Your task to perform on an android device: Open calendar and show me the second week of next month Image 0: 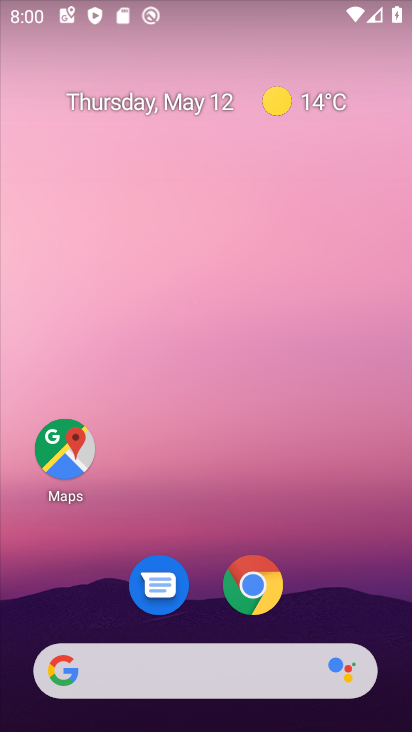
Step 0: drag from (246, 445) to (225, 33)
Your task to perform on an android device: Open calendar and show me the second week of next month Image 1: 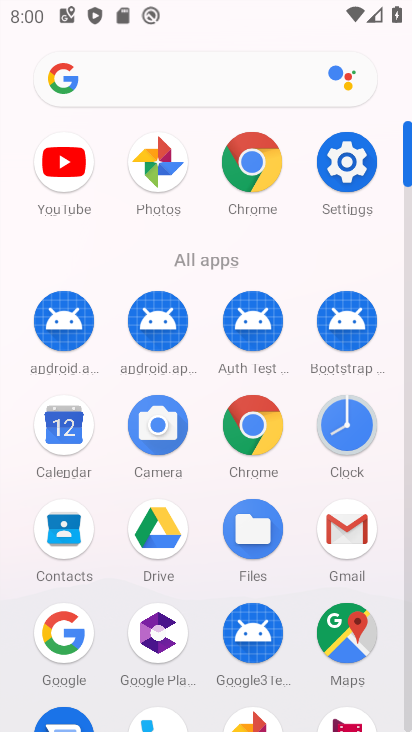
Step 1: click (72, 419)
Your task to perform on an android device: Open calendar and show me the second week of next month Image 2: 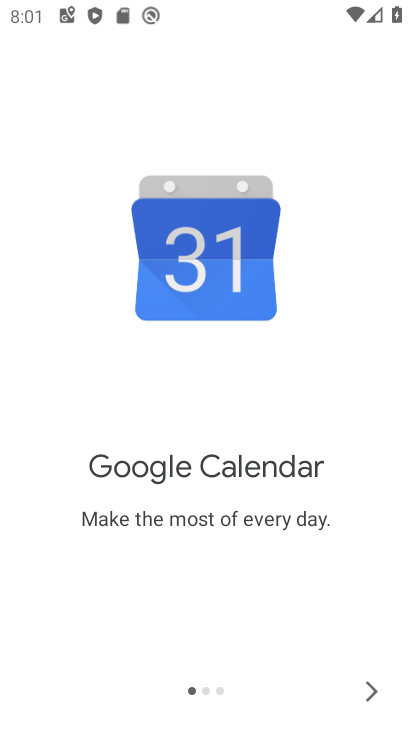
Step 2: press home button
Your task to perform on an android device: Open calendar and show me the second week of next month Image 3: 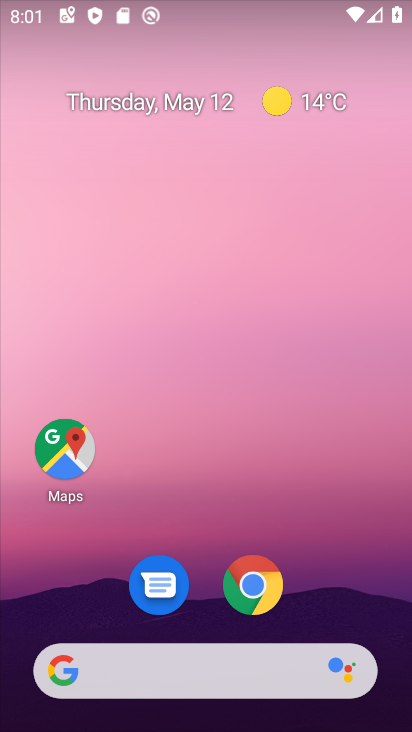
Step 3: drag from (222, 482) to (156, 68)
Your task to perform on an android device: Open calendar and show me the second week of next month Image 4: 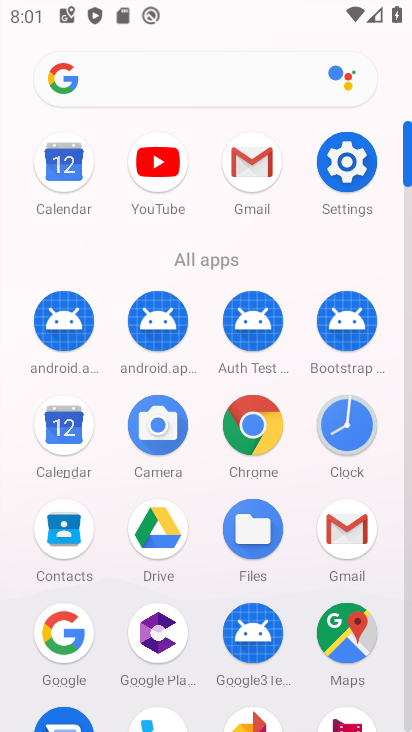
Step 4: click (70, 170)
Your task to perform on an android device: Open calendar and show me the second week of next month Image 5: 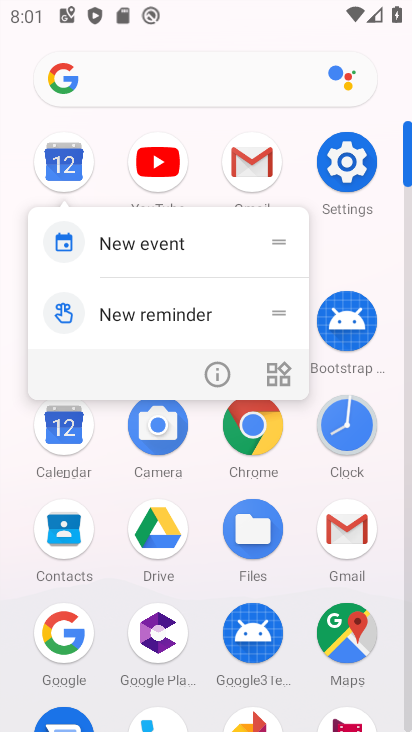
Step 5: click (64, 155)
Your task to perform on an android device: Open calendar and show me the second week of next month Image 6: 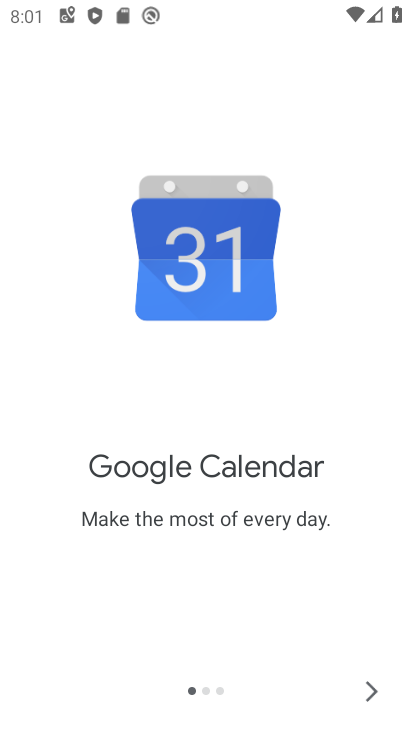
Step 6: click (363, 682)
Your task to perform on an android device: Open calendar and show me the second week of next month Image 7: 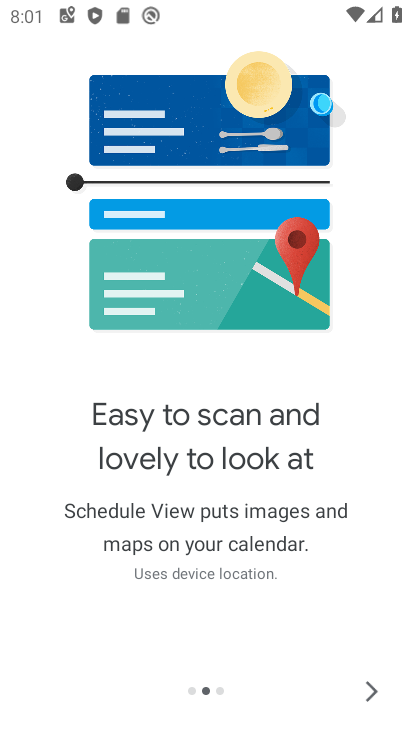
Step 7: click (363, 682)
Your task to perform on an android device: Open calendar and show me the second week of next month Image 8: 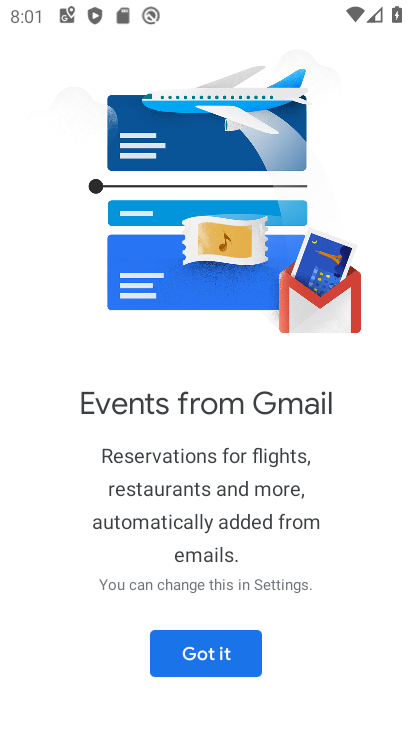
Step 8: click (239, 643)
Your task to perform on an android device: Open calendar and show me the second week of next month Image 9: 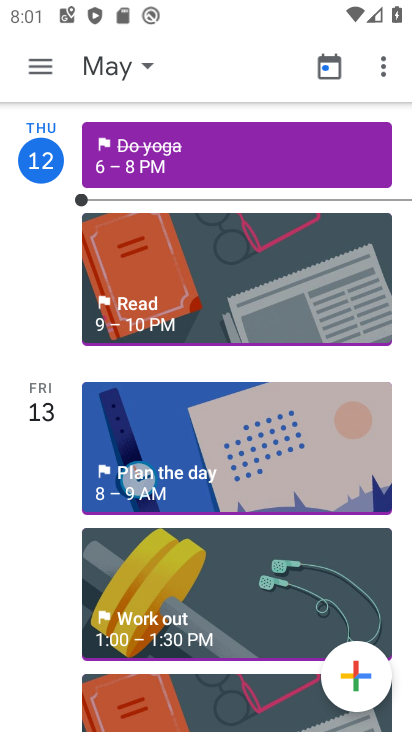
Step 9: click (40, 65)
Your task to perform on an android device: Open calendar and show me the second week of next month Image 10: 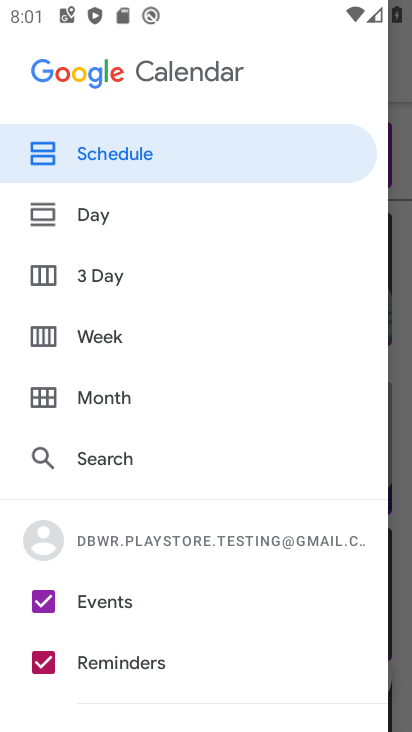
Step 10: click (82, 386)
Your task to perform on an android device: Open calendar and show me the second week of next month Image 11: 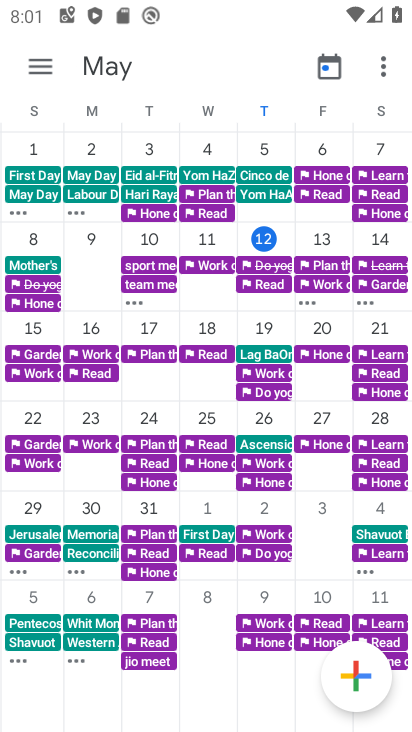
Step 11: drag from (367, 407) to (0, 307)
Your task to perform on an android device: Open calendar and show me the second week of next month Image 12: 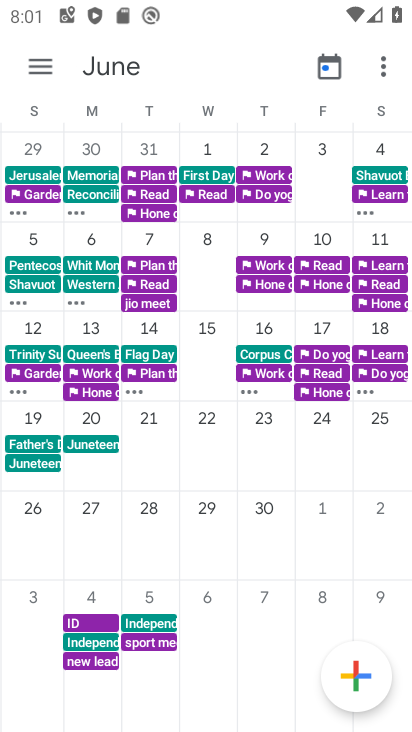
Step 12: click (37, 328)
Your task to perform on an android device: Open calendar and show me the second week of next month Image 13: 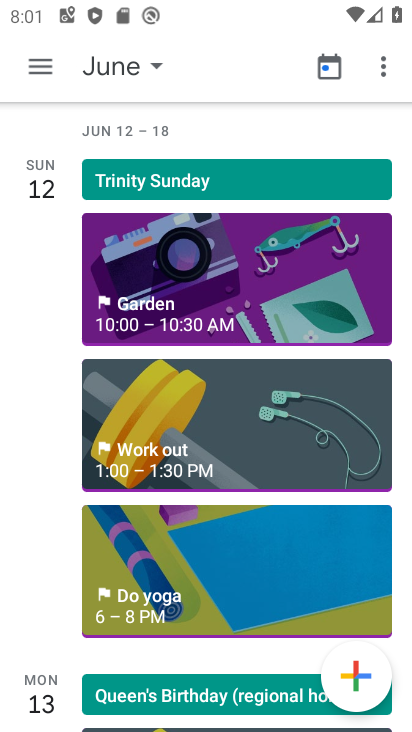
Step 13: click (34, 64)
Your task to perform on an android device: Open calendar and show me the second week of next month Image 14: 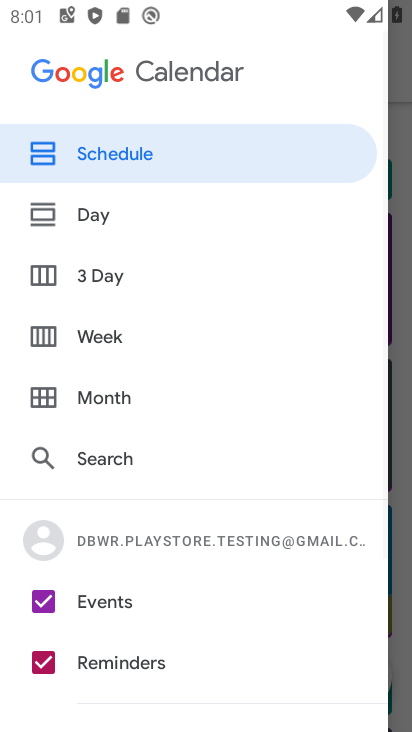
Step 14: click (113, 331)
Your task to perform on an android device: Open calendar and show me the second week of next month Image 15: 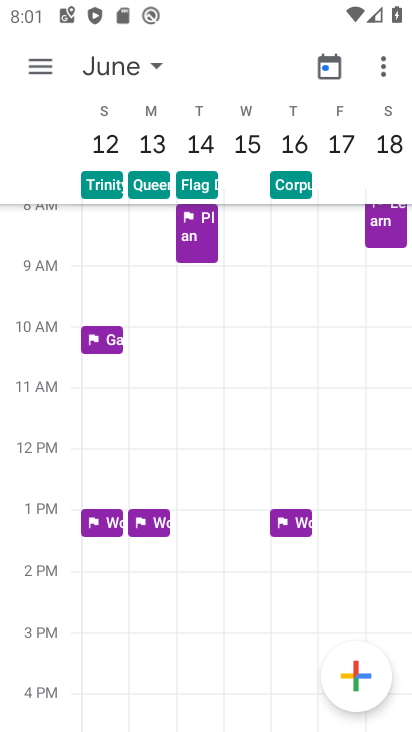
Step 15: task complete